Your task to perform on an android device: Go to privacy settings Image 0: 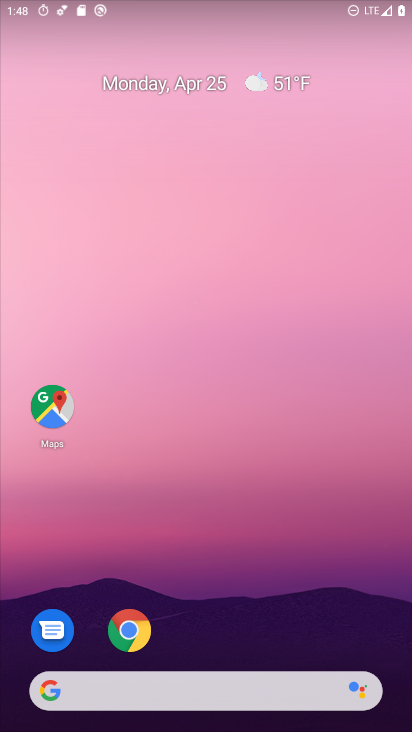
Step 0: click (334, 2)
Your task to perform on an android device: Go to privacy settings Image 1: 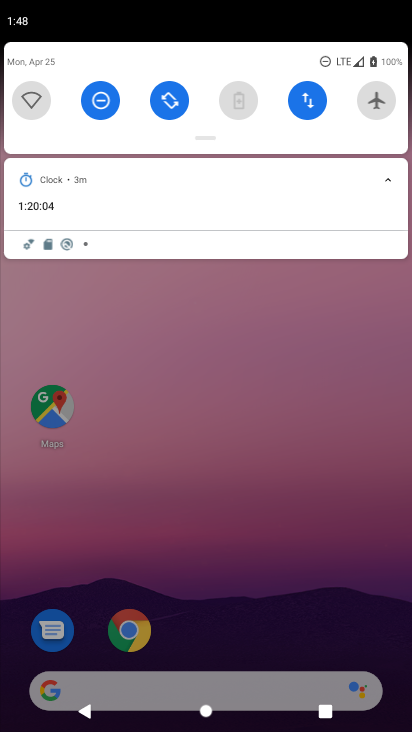
Step 1: drag from (176, 648) to (219, 133)
Your task to perform on an android device: Go to privacy settings Image 2: 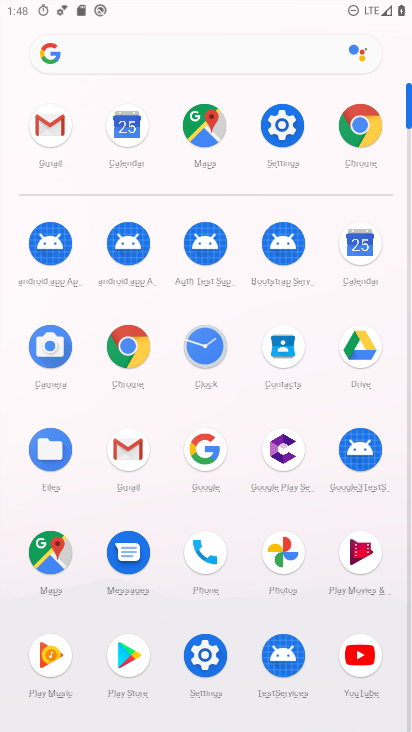
Step 2: drag from (236, 697) to (236, 396)
Your task to perform on an android device: Go to privacy settings Image 3: 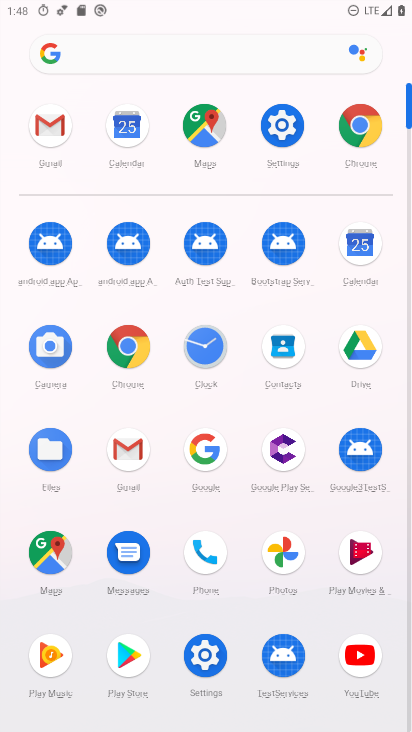
Step 3: drag from (244, 665) to (221, 83)
Your task to perform on an android device: Go to privacy settings Image 4: 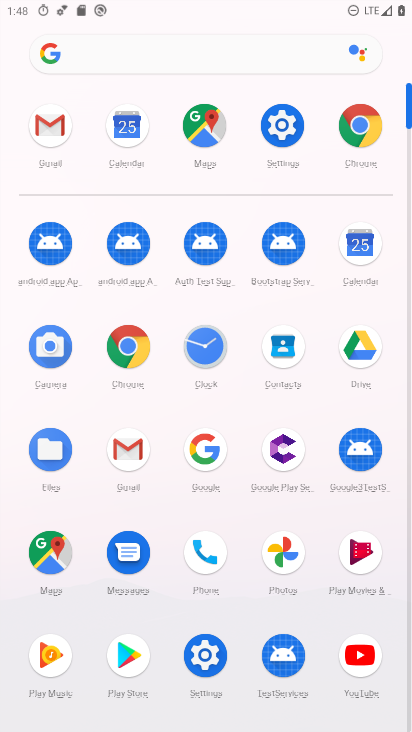
Step 4: click (209, 653)
Your task to perform on an android device: Go to privacy settings Image 5: 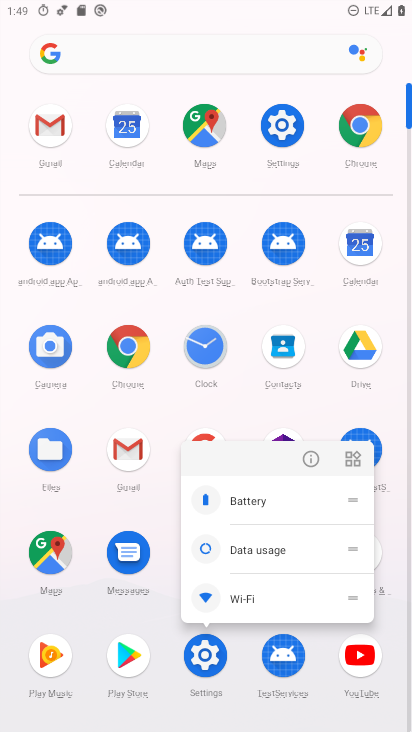
Step 5: click (300, 461)
Your task to perform on an android device: Go to privacy settings Image 6: 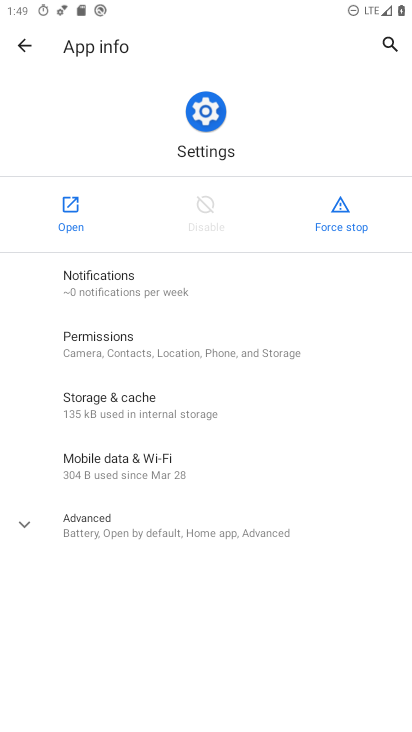
Step 6: click (63, 204)
Your task to perform on an android device: Go to privacy settings Image 7: 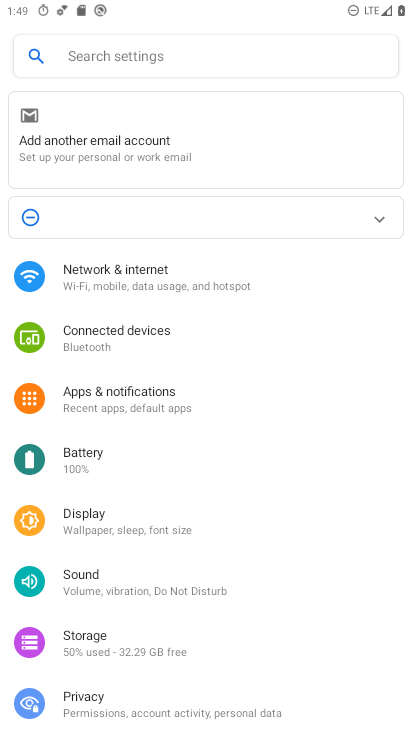
Step 7: drag from (205, 524) to (220, 184)
Your task to perform on an android device: Go to privacy settings Image 8: 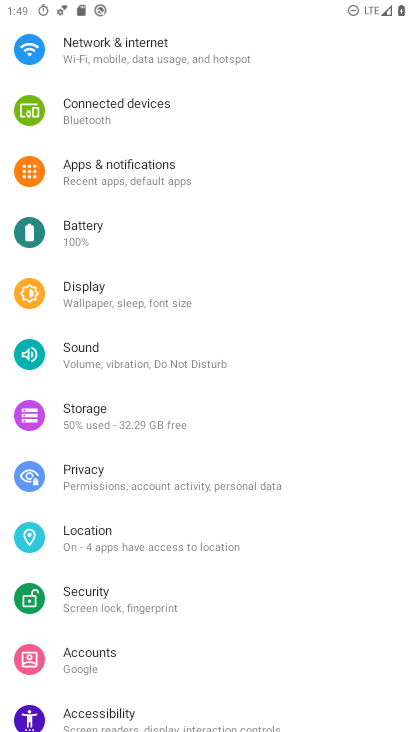
Step 8: click (155, 477)
Your task to perform on an android device: Go to privacy settings Image 9: 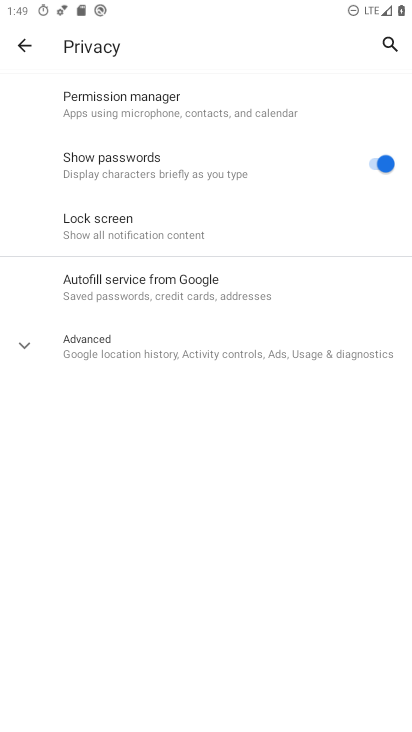
Step 9: task complete